Your task to perform on an android device: toggle javascript in the chrome app Image 0: 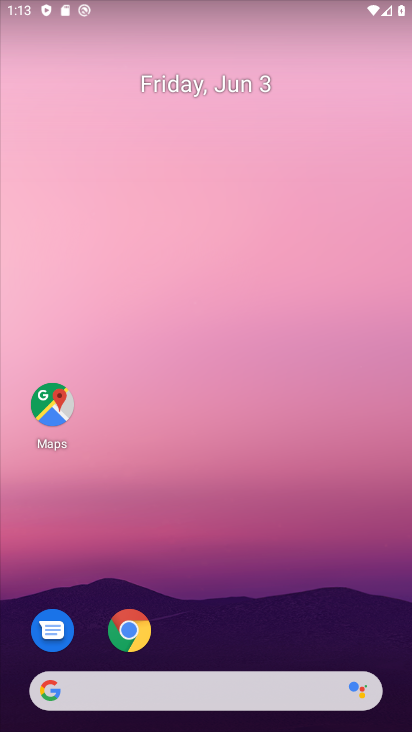
Step 0: click (132, 637)
Your task to perform on an android device: toggle javascript in the chrome app Image 1: 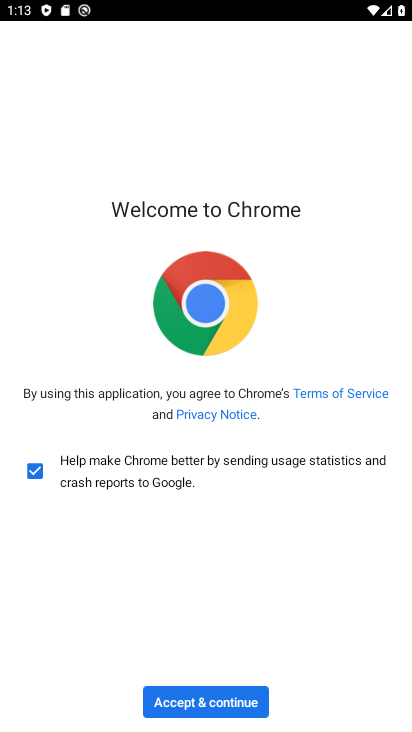
Step 1: click (199, 714)
Your task to perform on an android device: toggle javascript in the chrome app Image 2: 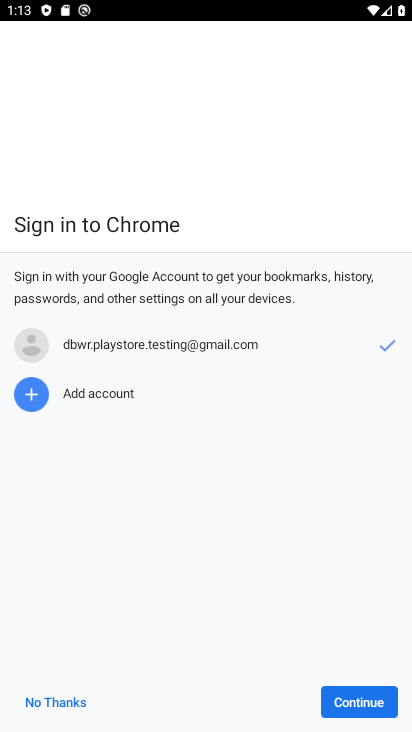
Step 2: click (376, 703)
Your task to perform on an android device: toggle javascript in the chrome app Image 3: 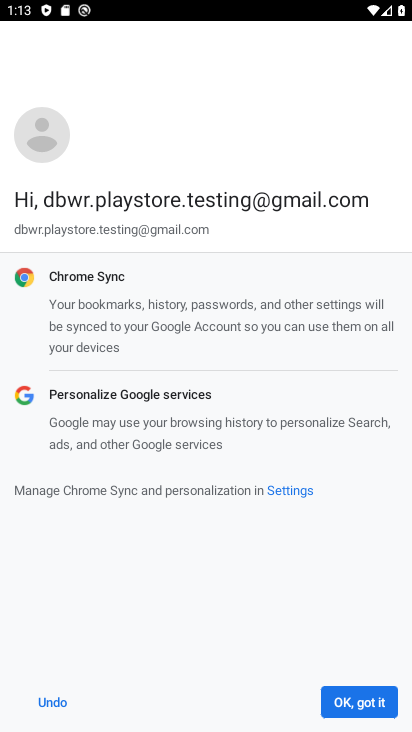
Step 3: click (376, 703)
Your task to perform on an android device: toggle javascript in the chrome app Image 4: 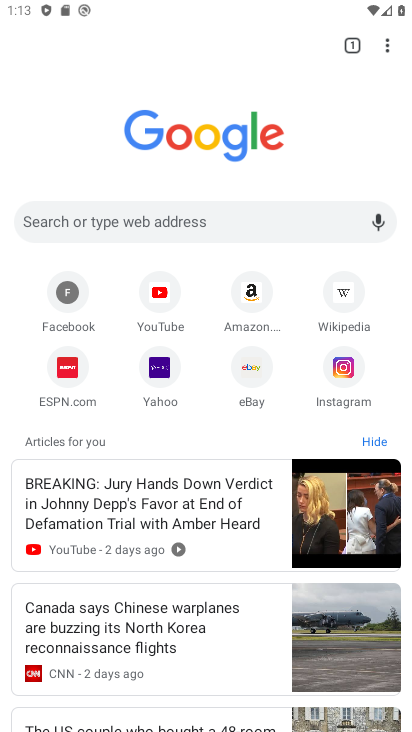
Step 4: click (388, 51)
Your task to perform on an android device: toggle javascript in the chrome app Image 5: 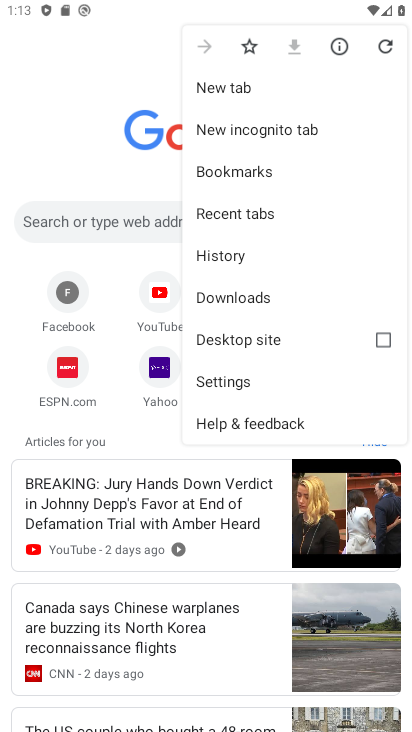
Step 5: click (210, 377)
Your task to perform on an android device: toggle javascript in the chrome app Image 6: 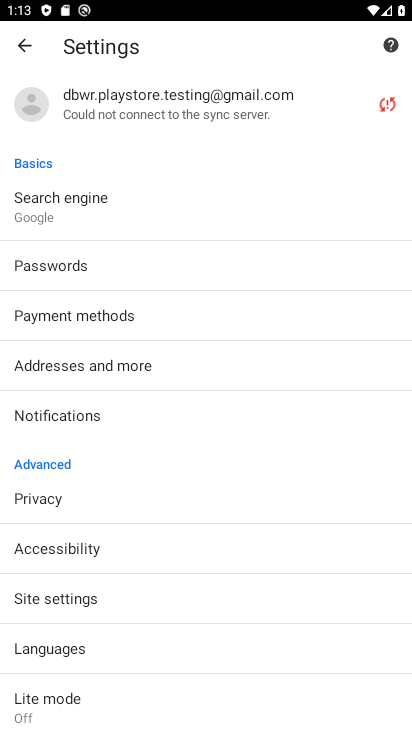
Step 6: click (45, 593)
Your task to perform on an android device: toggle javascript in the chrome app Image 7: 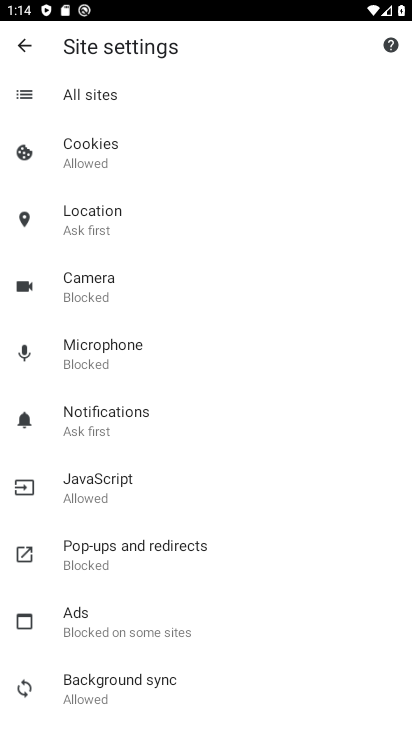
Step 7: click (79, 486)
Your task to perform on an android device: toggle javascript in the chrome app Image 8: 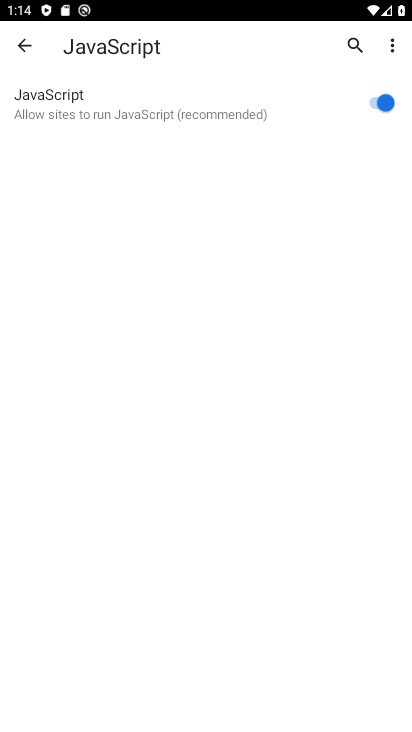
Step 8: click (372, 110)
Your task to perform on an android device: toggle javascript in the chrome app Image 9: 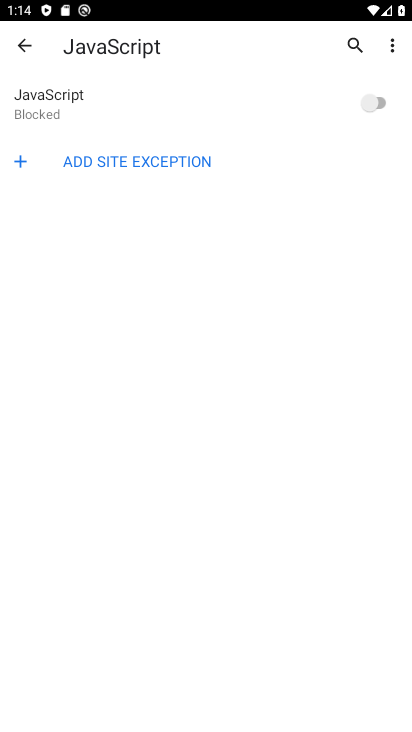
Step 9: task complete